Your task to perform on an android device: turn off translation in the chrome app Image 0: 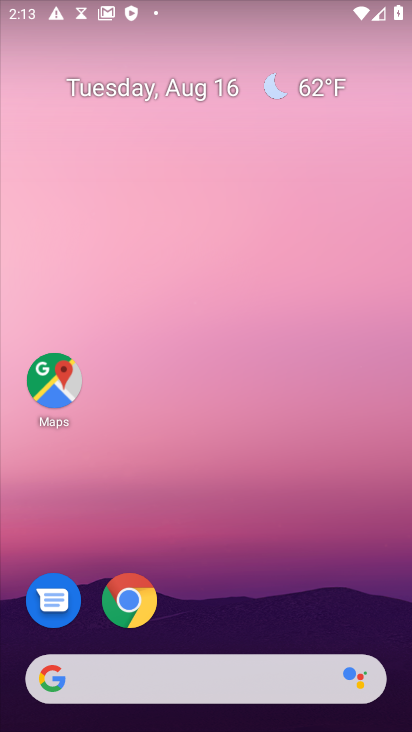
Step 0: click (320, 74)
Your task to perform on an android device: turn off translation in the chrome app Image 1: 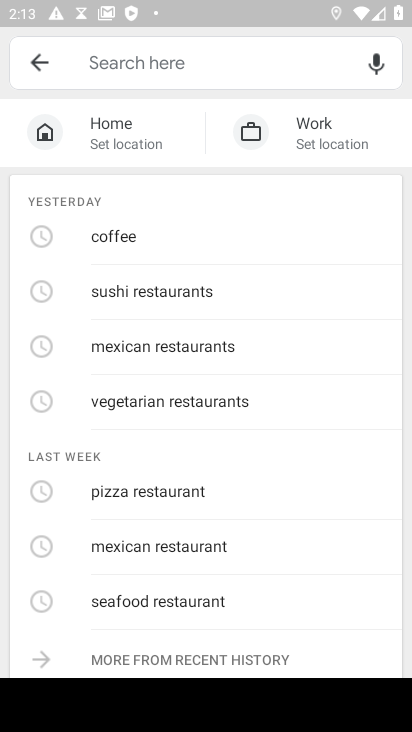
Step 1: press home button
Your task to perform on an android device: turn off translation in the chrome app Image 2: 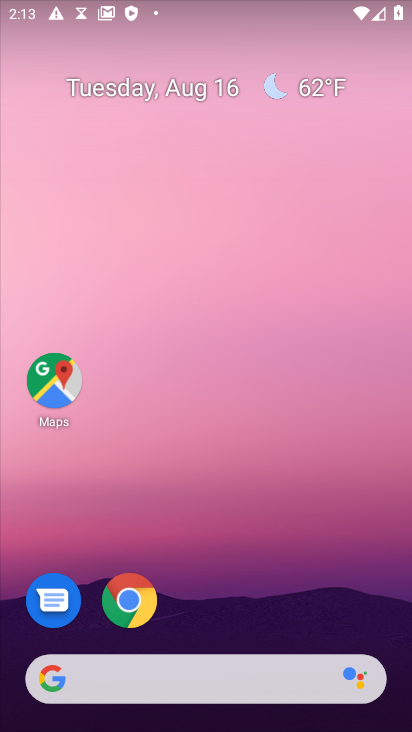
Step 2: click (142, 613)
Your task to perform on an android device: turn off translation in the chrome app Image 3: 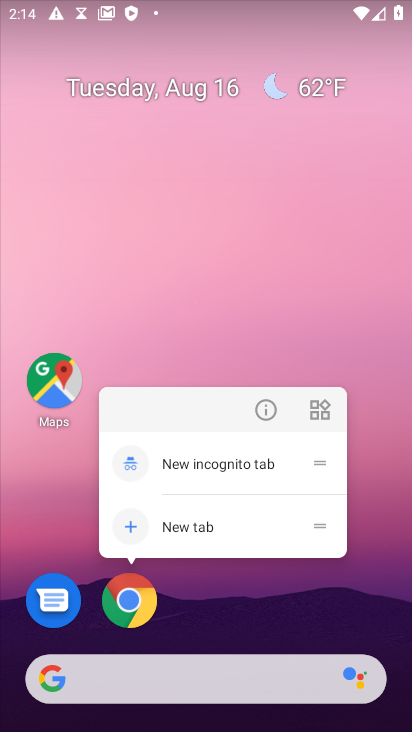
Step 3: click (142, 613)
Your task to perform on an android device: turn off translation in the chrome app Image 4: 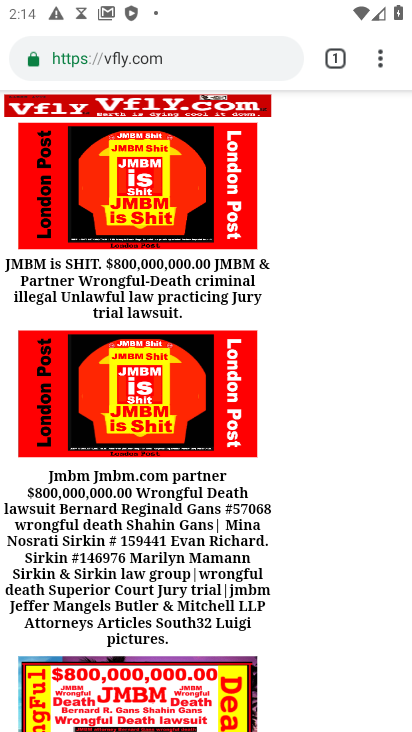
Step 4: drag from (378, 65) to (217, 626)
Your task to perform on an android device: turn off translation in the chrome app Image 5: 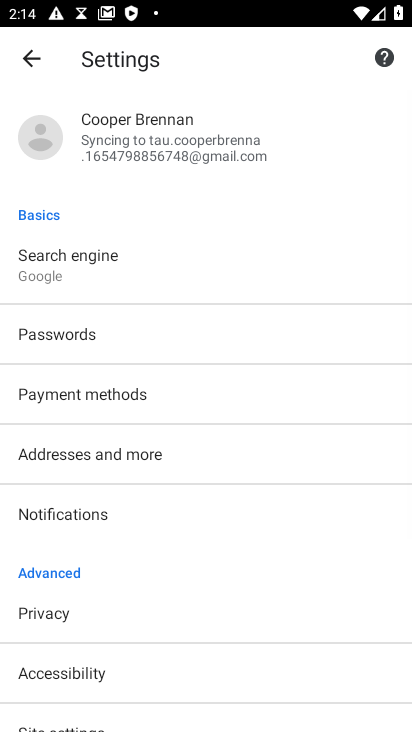
Step 5: drag from (189, 659) to (117, 79)
Your task to perform on an android device: turn off translation in the chrome app Image 6: 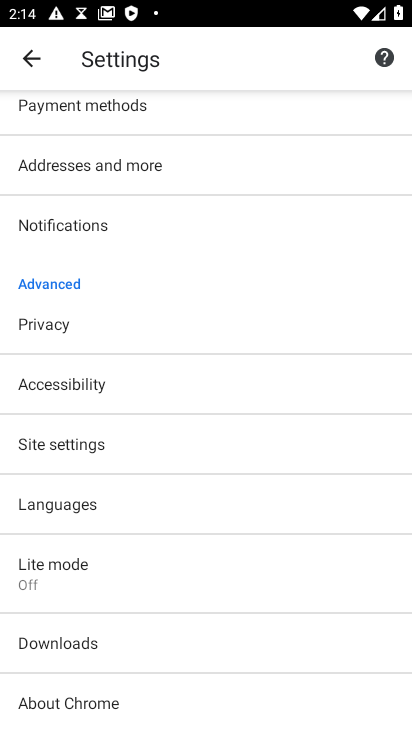
Step 6: click (165, 513)
Your task to perform on an android device: turn off translation in the chrome app Image 7: 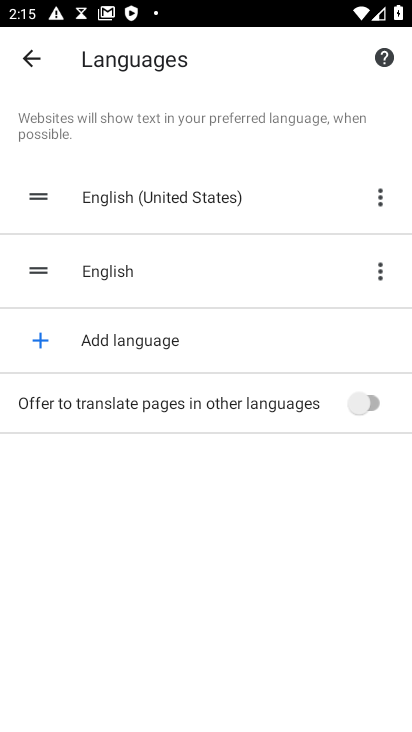
Step 7: task complete